Your task to perform on an android device: toggle wifi Image 0: 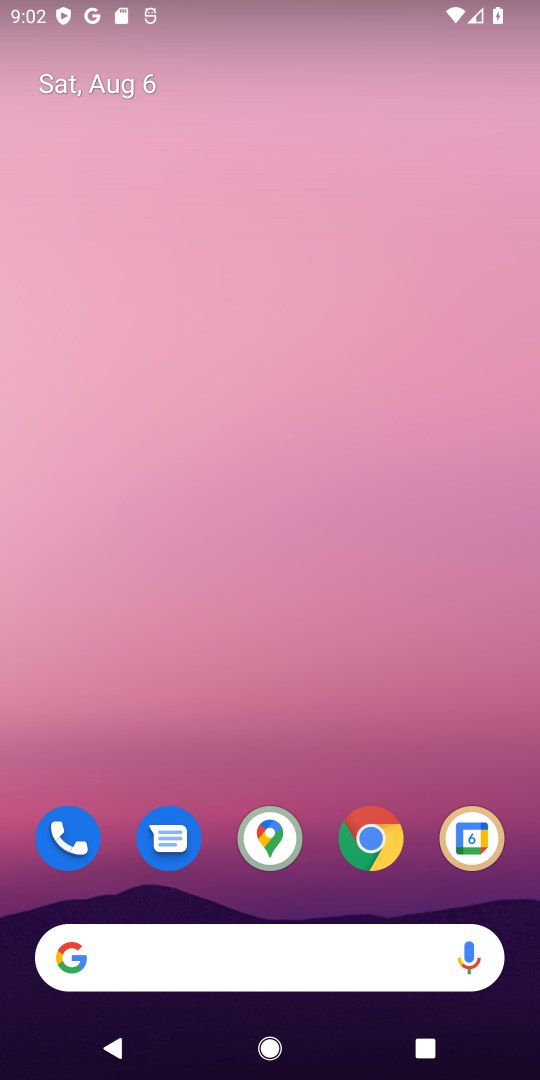
Step 0: drag from (334, 14) to (318, 665)
Your task to perform on an android device: toggle wifi Image 1: 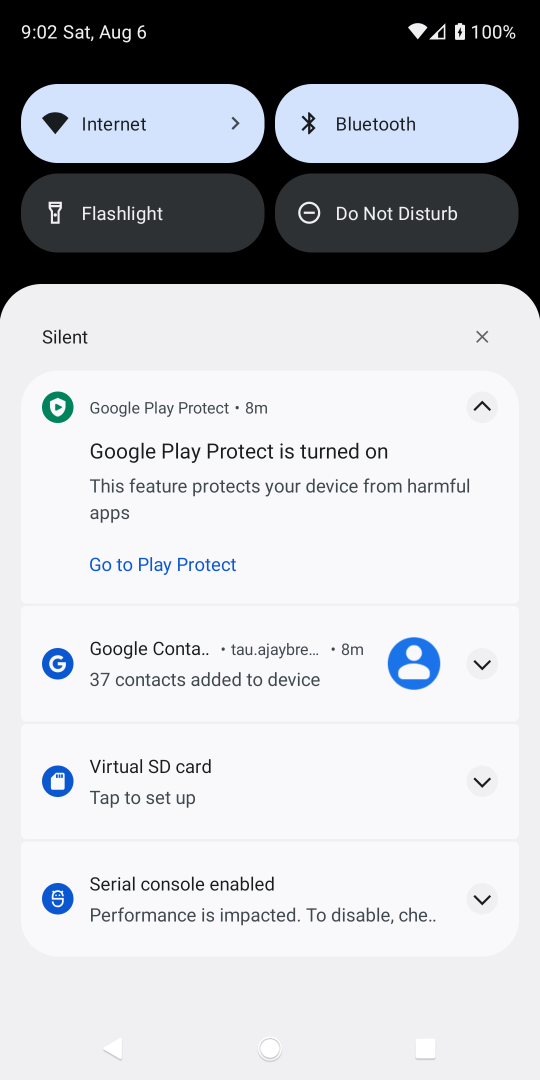
Step 1: drag from (262, 257) to (275, 549)
Your task to perform on an android device: toggle wifi Image 2: 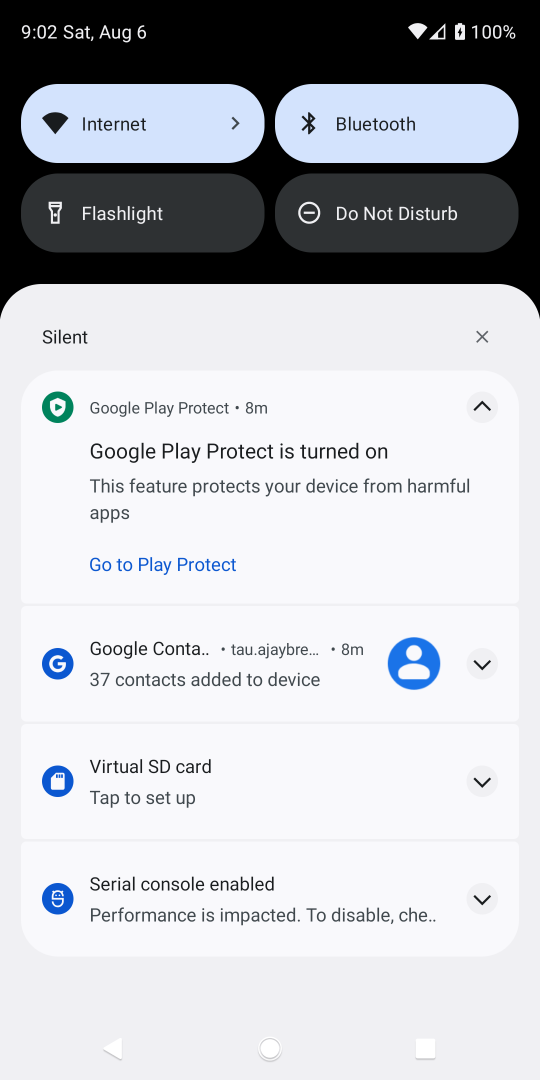
Step 2: click (158, 126)
Your task to perform on an android device: toggle wifi Image 3: 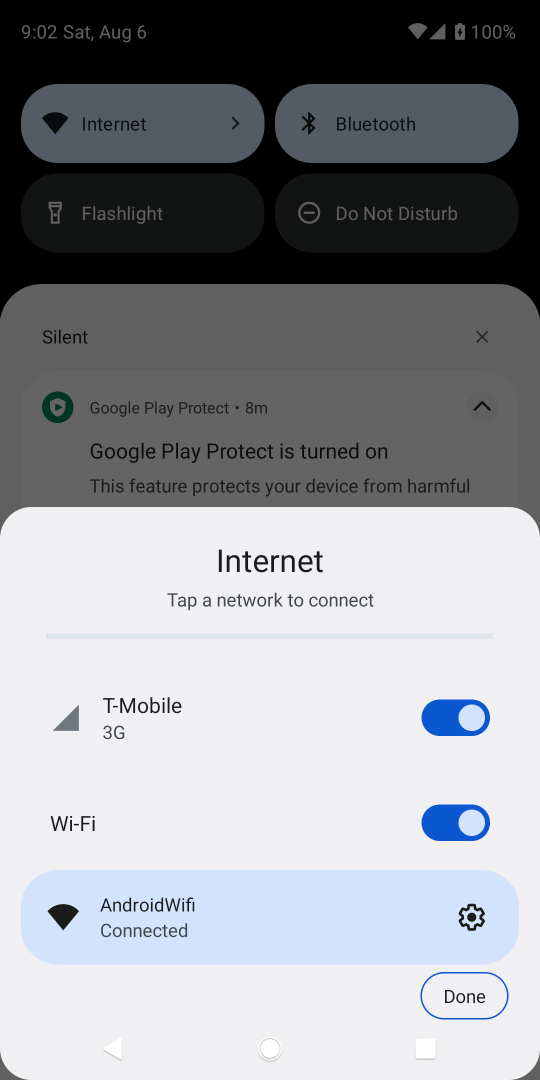
Step 3: click (464, 822)
Your task to perform on an android device: toggle wifi Image 4: 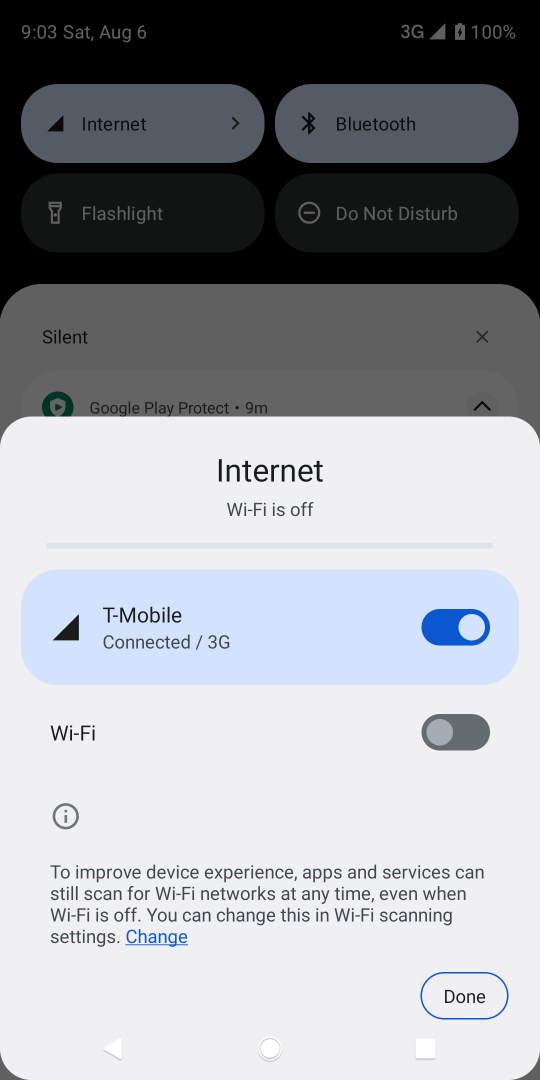
Step 4: task complete